Your task to perform on an android device: turn on translation in the chrome app Image 0: 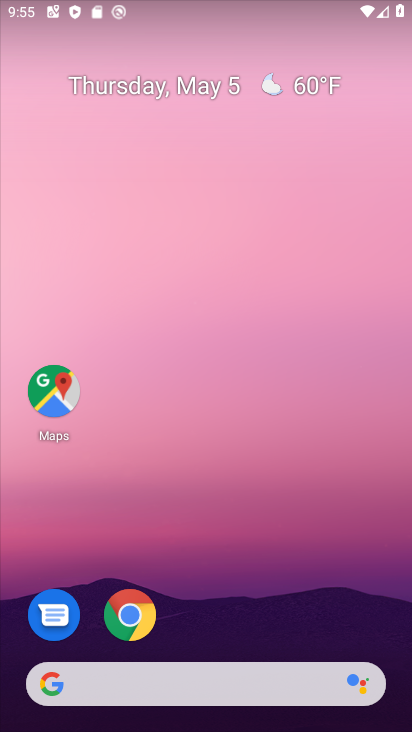
Step 0: click (132, 614)
Your task to perform on an android device: turn on translation in the chrome app Image 1: 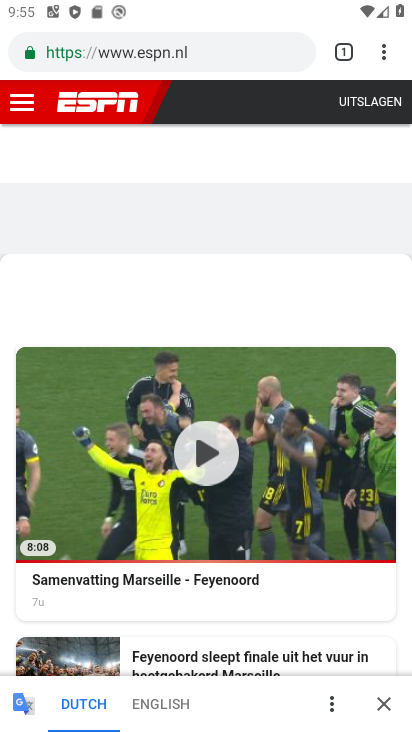
Step 1: click (375, 53)
Your task to perform on an android device: turn on translation in the chrome app Image 2: 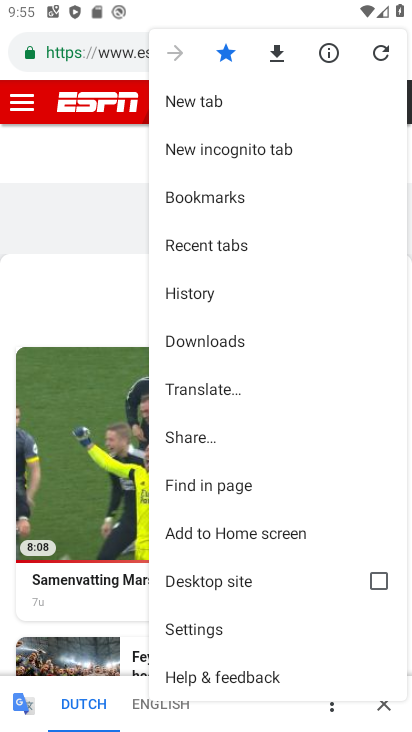
Step 2: click (206, 628)
Your task to perform on an android device: turn on translation in the chrome app Image 3: 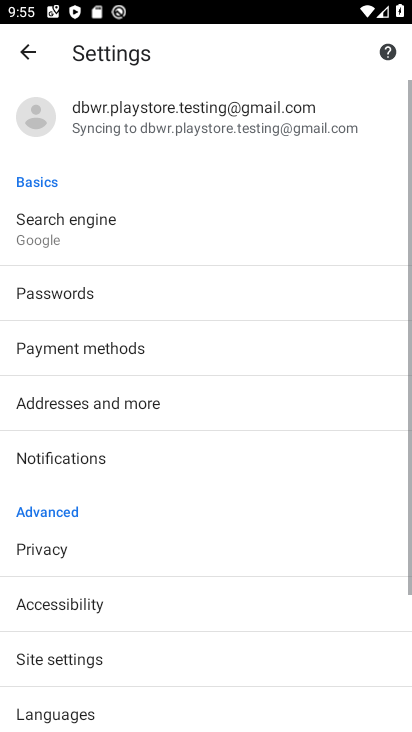
Step 3: drag from (206, 625) to (236, 331)
Your task to perform on an android device: turn on translation in the chrome app Image 4: 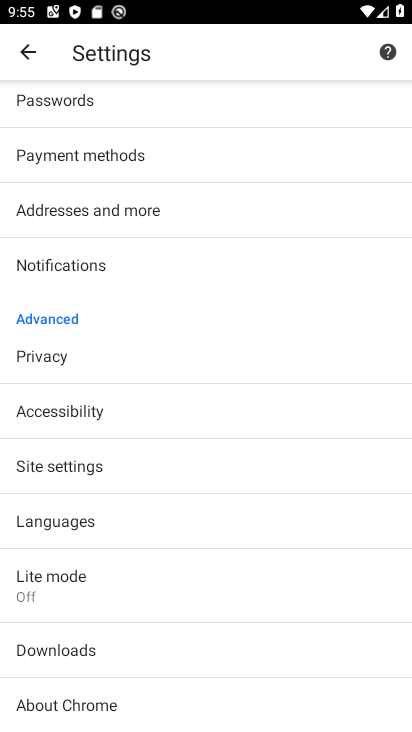
Step 4: click (75, 526)
Your task to perform on an android device: turn on translation in the chrome app Image 5: 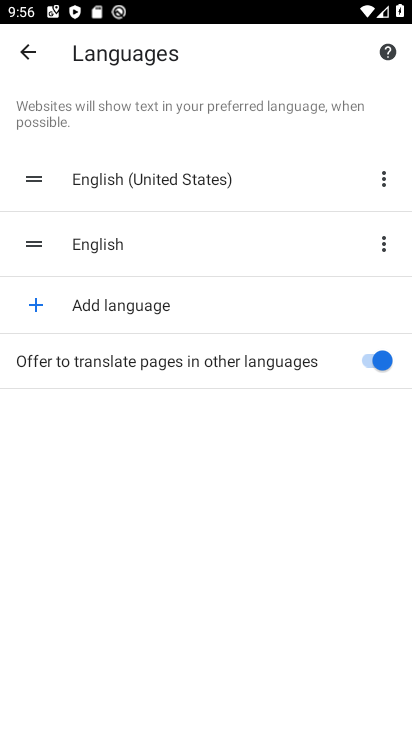
Step 5: task complete